Your task to perform on an android device: Show me the alarms in the clock app Image 0: 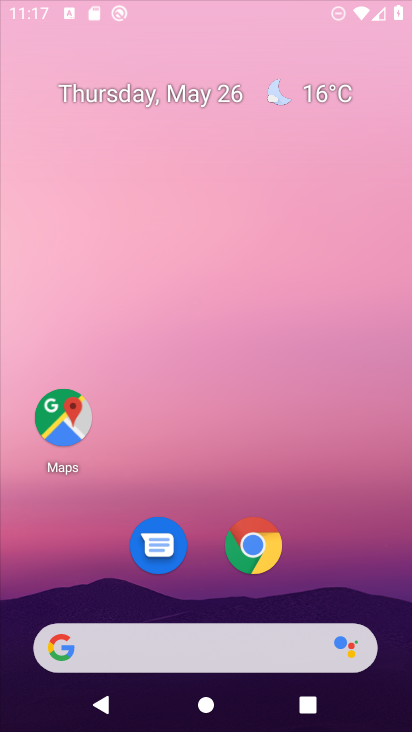
Step 0: press home button
Your task to perform on an android device: Show me the alarms in the clock app Image 1: 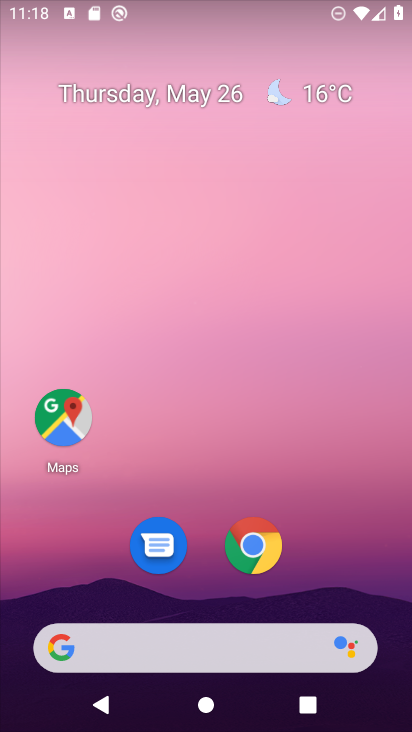
Step 1: drag from (349, 566) to (261, 88)
Your task to perform on an android device: Show me the alarms in the clock app Image 2: 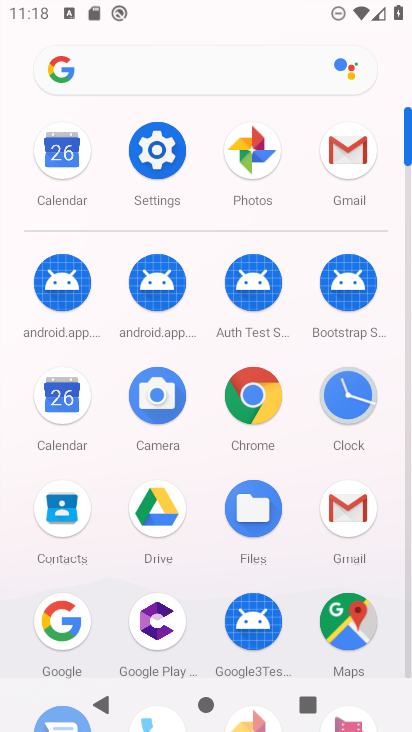
Step 2: click (351, 413)
Your task to perform on an android device: Show me the alarms in the clock app Image 3: 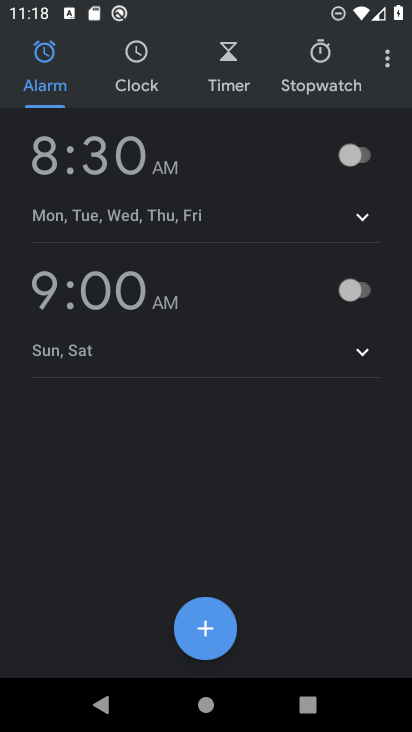
Step 3: task complete